Your task to perform on an android device: Search for flights from Zurich to Helsinki Image 0: 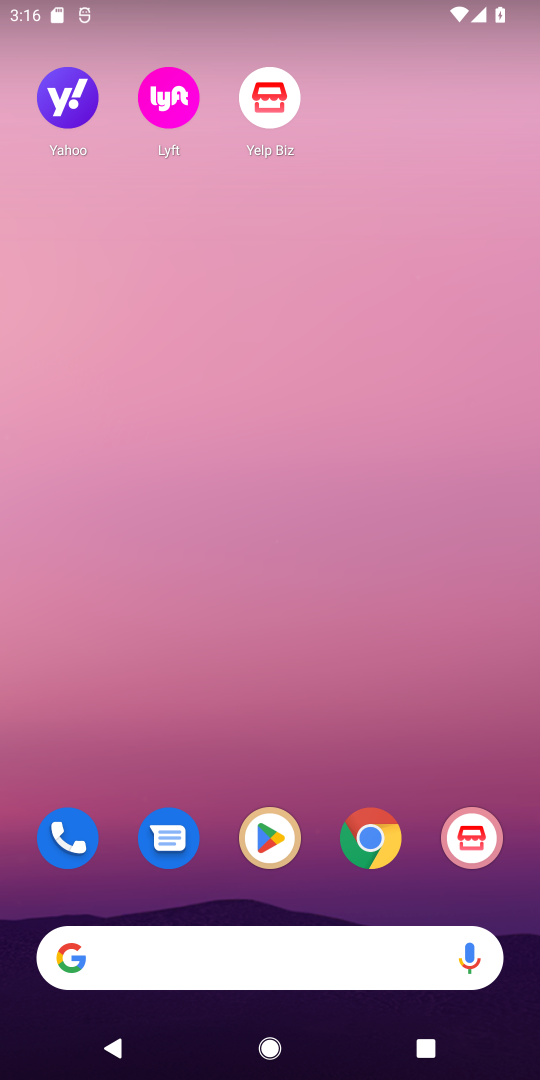
Step 0: click (369, 829)
Your task to perform on an android device: Search for flights from Zurich to Helsinki Image 1: 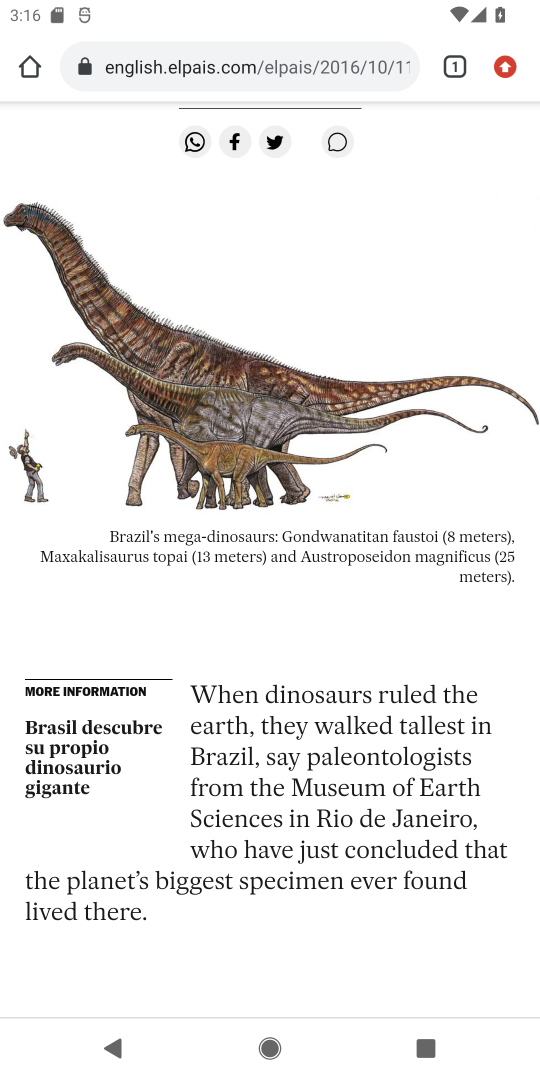
Step 1: click (281, 73)
Your task to perform on an android device: Search for flights from Zurich to Helsinki Image 2: 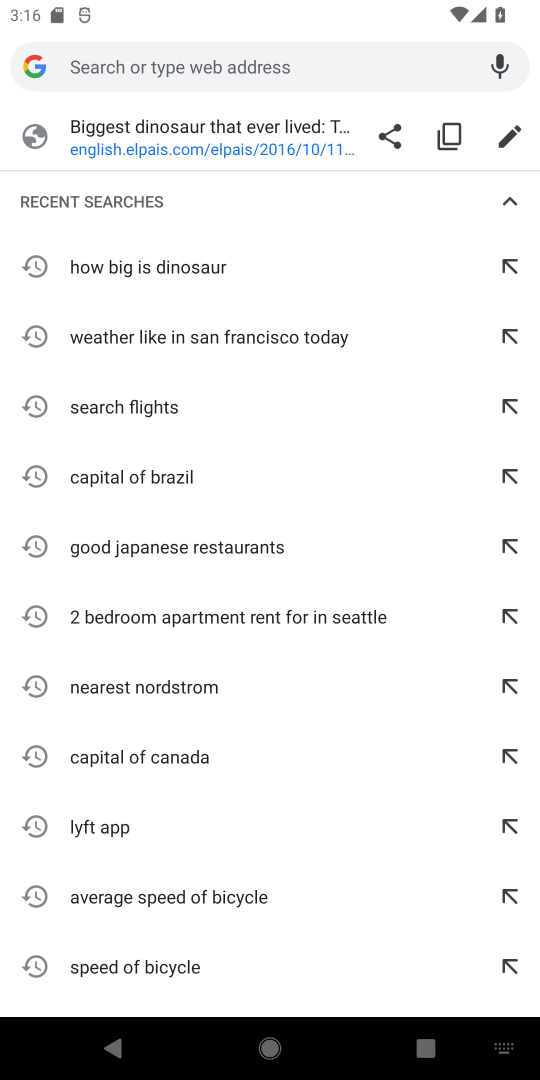
Step 2: type "search flight"
Your task to perform on an android device: Search for flights from Zurich to Helsinki Image 3: 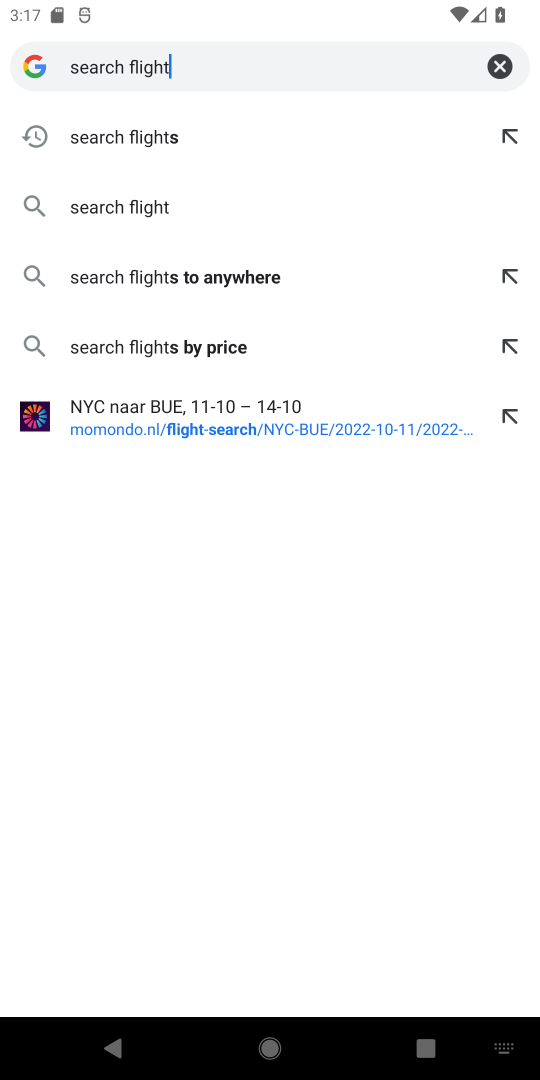
Step 3: click (142, 126)
Your task to perform on an android device: Search for flights from Zurich to Helsinki Image 4: 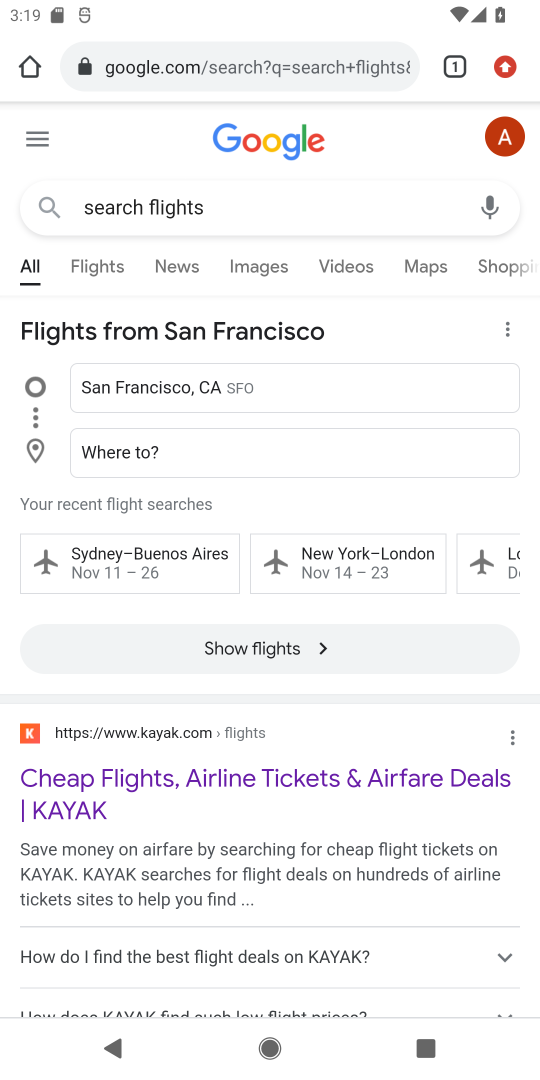
Step 4: click (249, 396)
Your task to perform on an android device: Search for flights from Zurich to Helsinki Image 5: 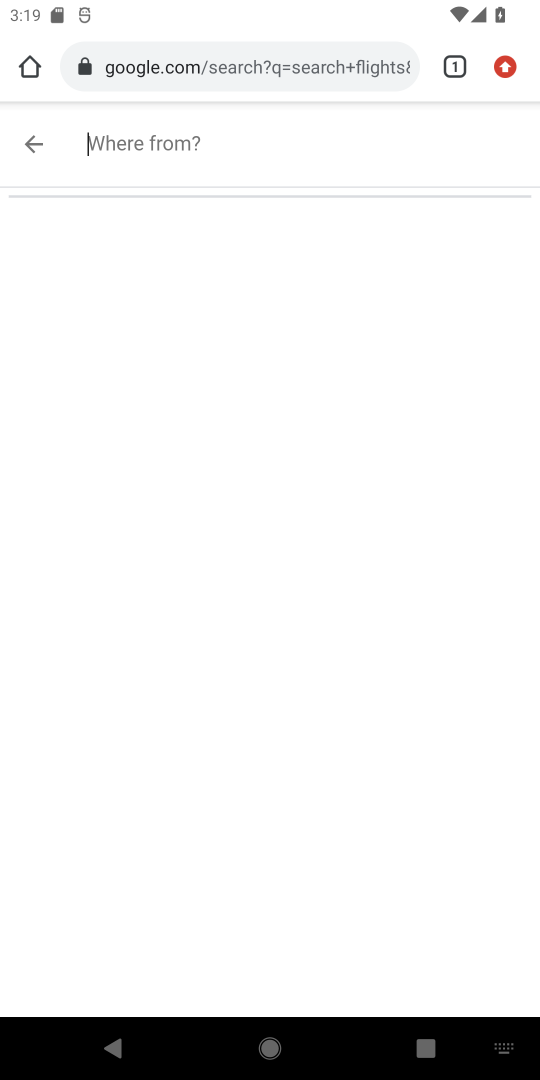
Step 5: type "zurich"
Your task to perform on an android device: Search for flights from Zurich to Helsinki Image 6: 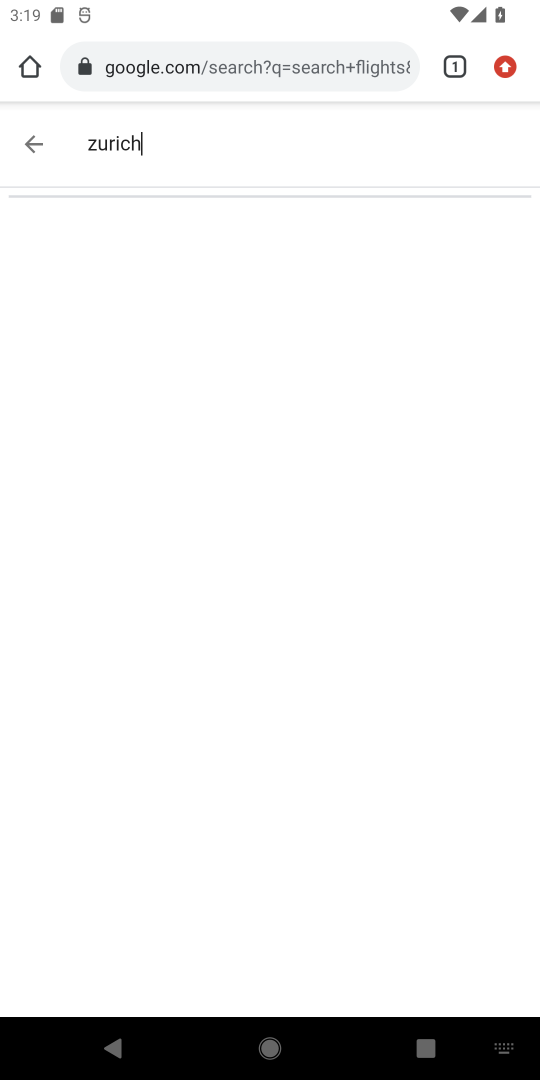
Step 6: type ""
Your task to perform on an android device: Search for flights from Zurich to Helsinki Image 7: 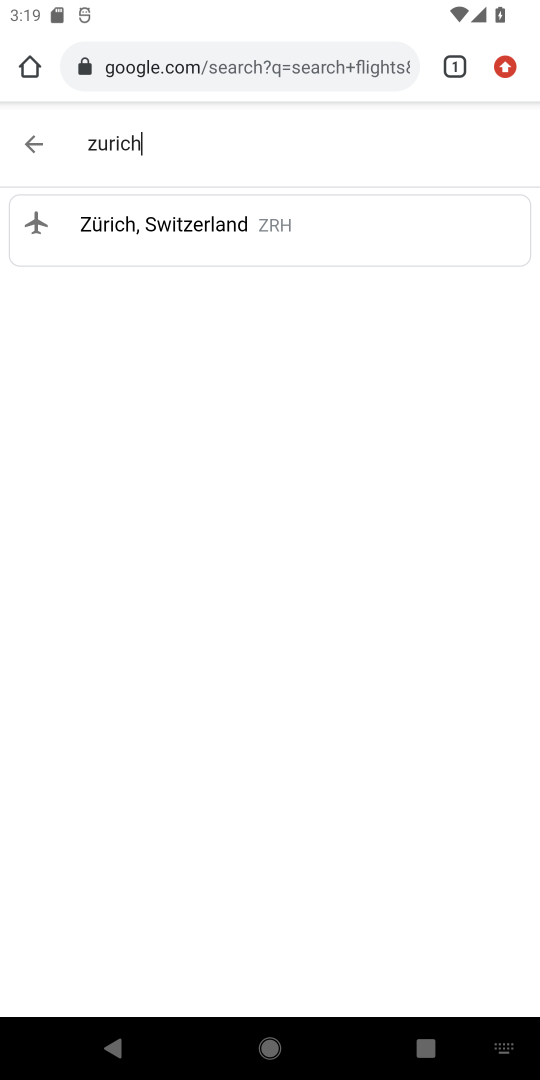
Step 7: click (109, 223)
Your task to perform on an android device: Search for flights from Zurich to Helsinki Image 8: 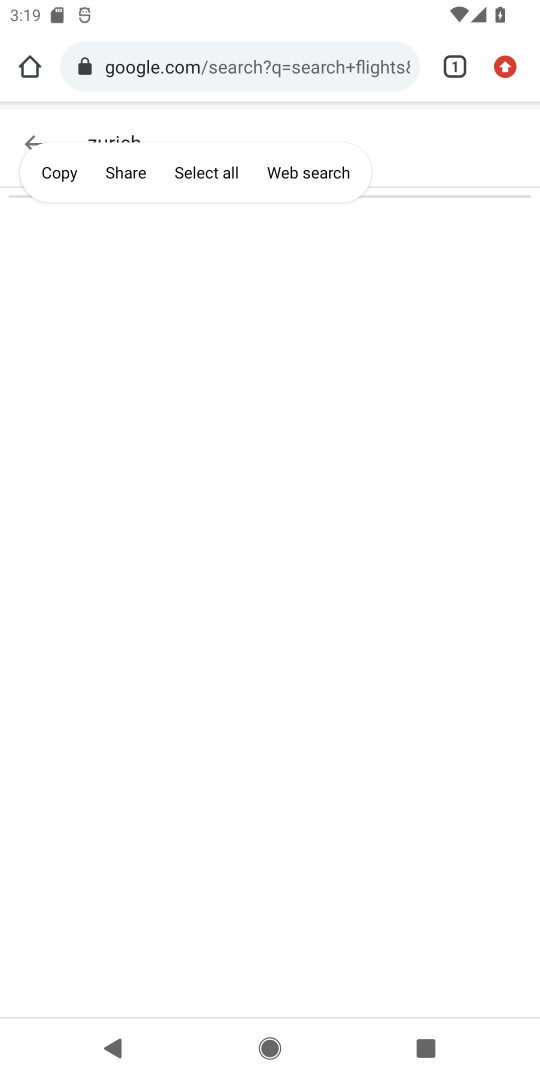
Step 8: click (217, 327)
Your task to perform on an android device: Search for flights from Zurich to Helsinki Image 9: 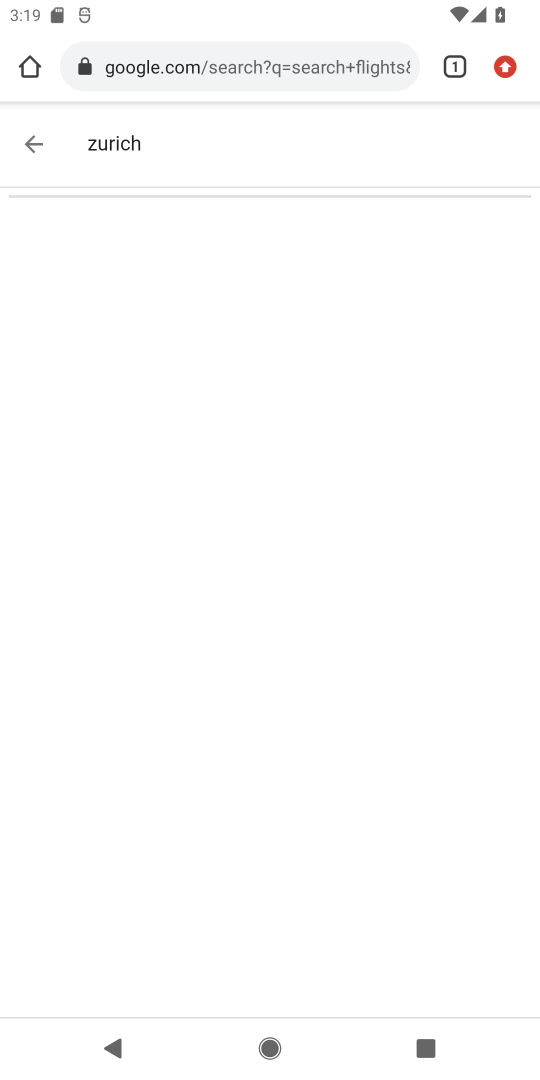
Step 9: click (154, 163)
Your task to perform on an android device: Search for flights from Zurich to Helsinki Image 10: 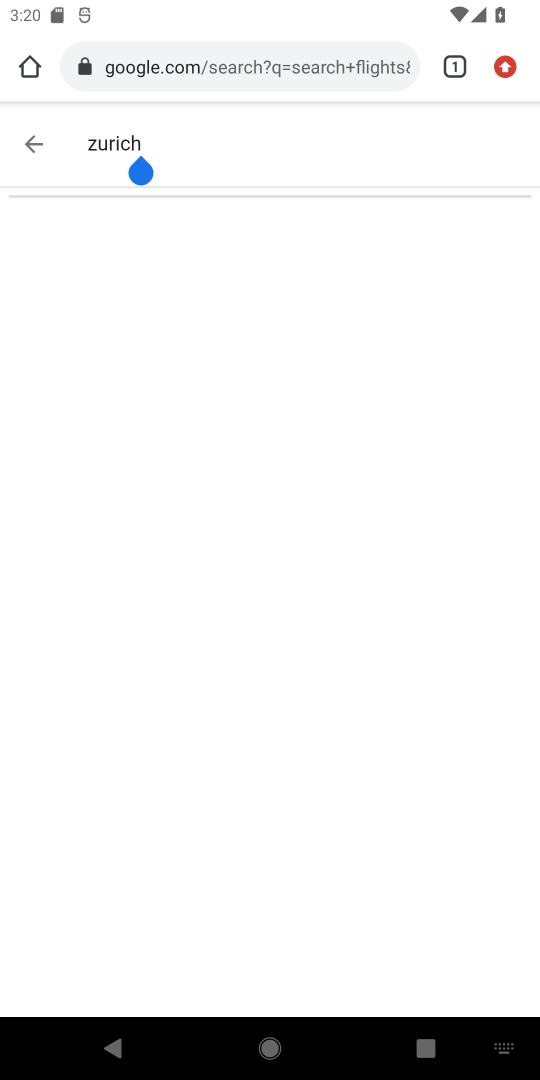
Step 10: click (298, 406)
Your task to perform on an android device: Search for flights from Zurich to Helsinki Image 11: 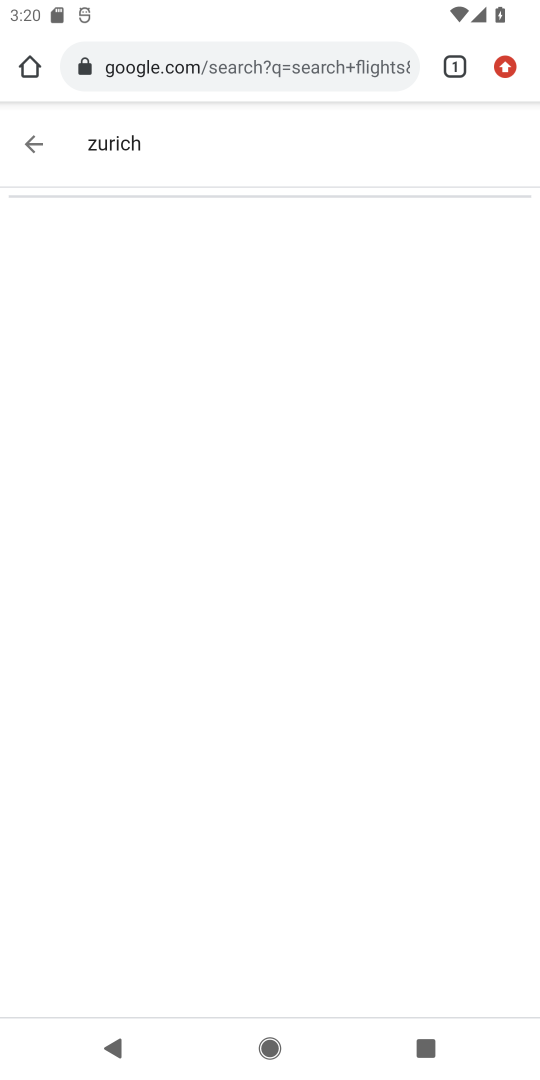
Step 11: type ""
Your task to perform on an android device: Search for flights from Zurich to Helsinki Image 12: 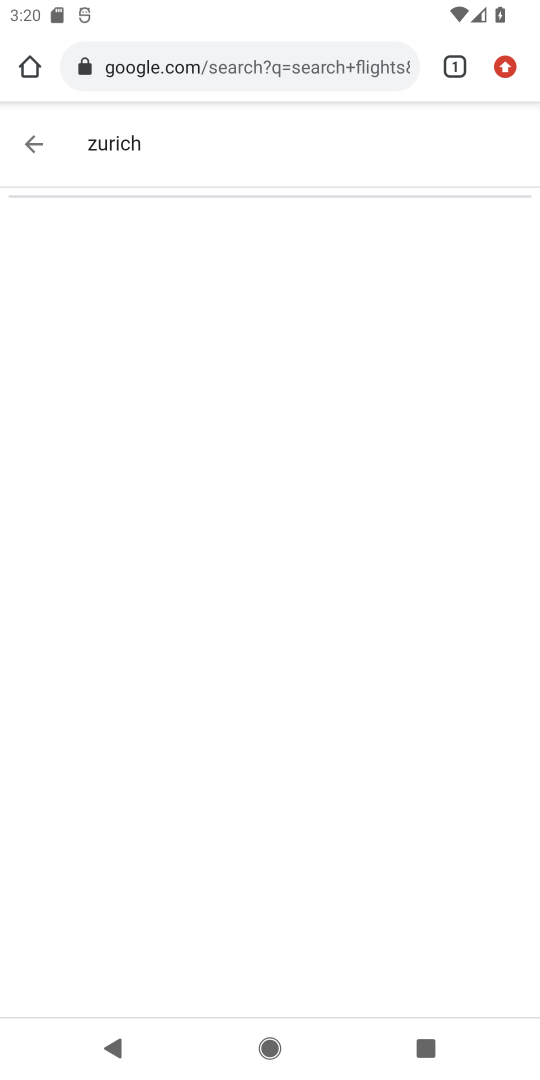
Step 12: click (174, 133)
Your task to perform on an android device: Search for flights from Zurich to Helsinki Image 13: 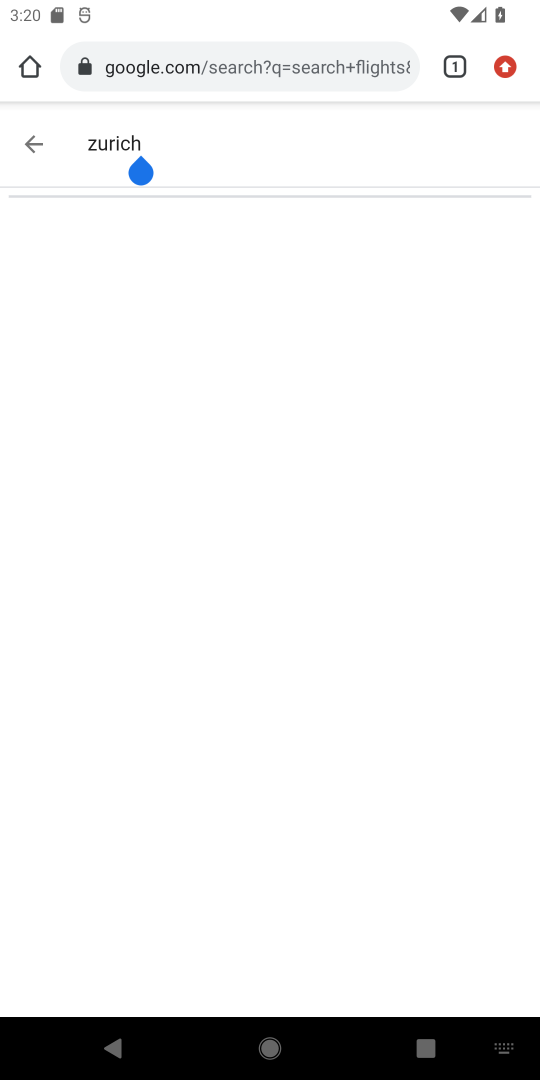
Step 13: type ""
Your task to perform on an android device: Search for flights from Zurich to Helsinki Image 14: 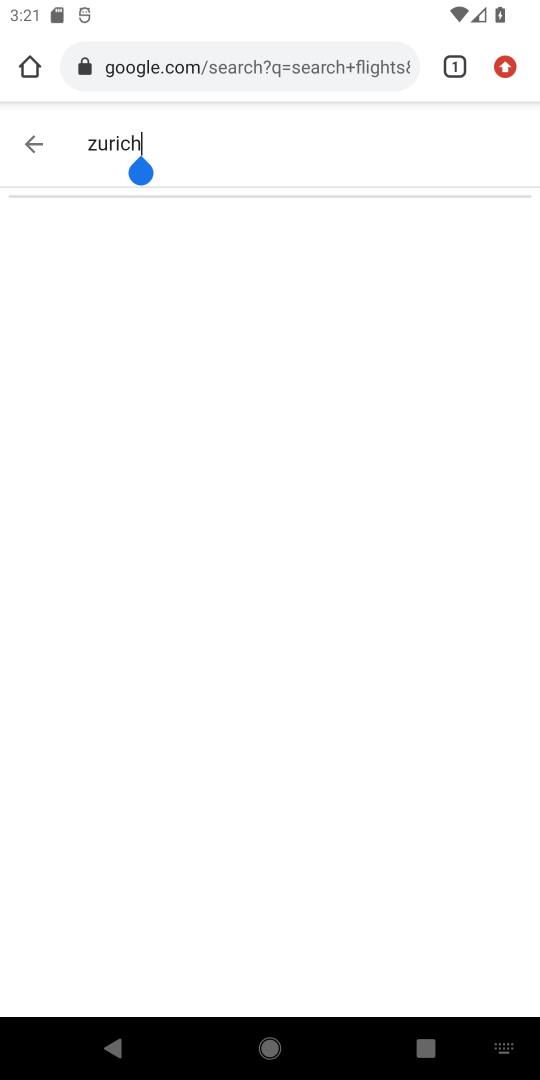
Step 14: click (121, 140)
Your task to perform on an android device: Search for flights from Zurich to Helsinki Image 15: 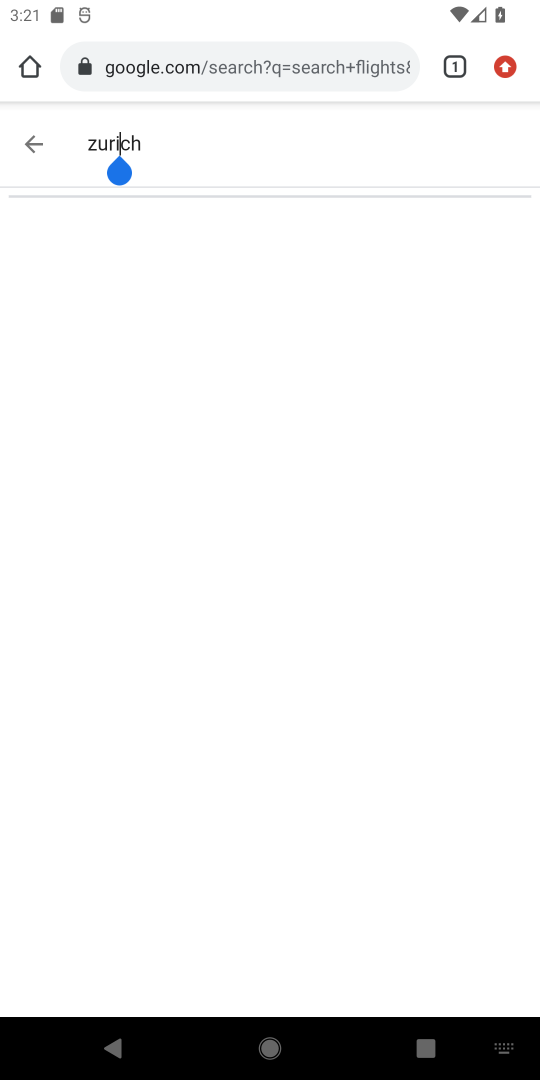
Step 15: click (148, 140)
Your task to perform on an android device: Search for flights from Zurich to Helsinki Image 16: 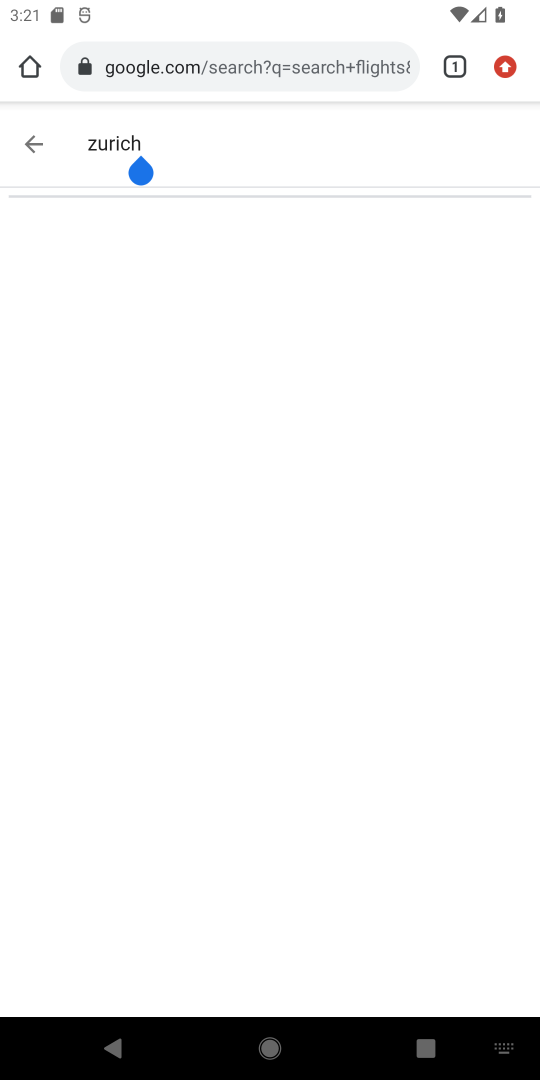
Step 16: type "zurich"
Your task to perform on an android device: Search for flights from Zurich to Helsinki Image 17: 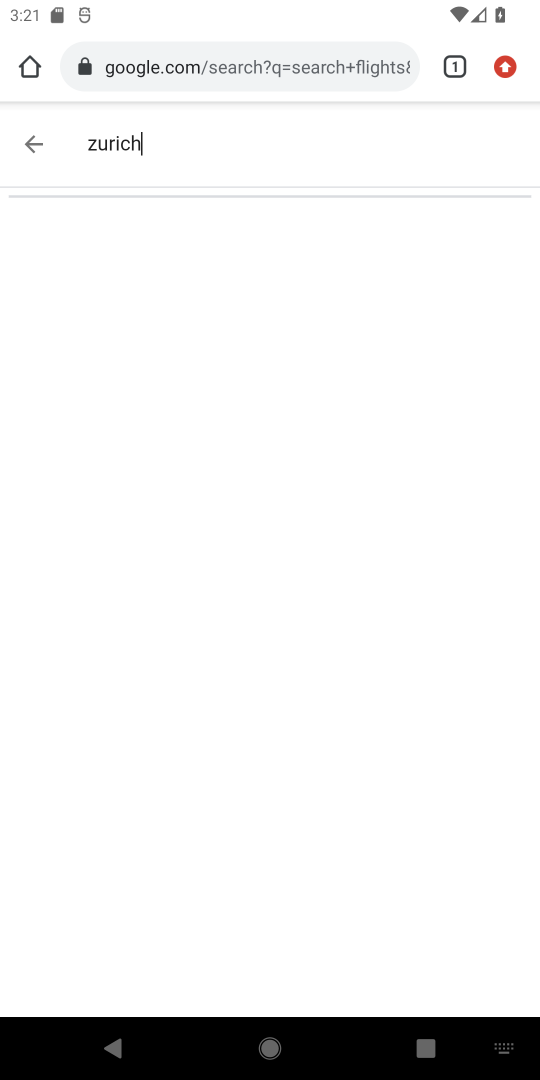
Step 17: type ""
Your task to perform on an android device: Search for flights from Zurich to Helsinki Image 18: 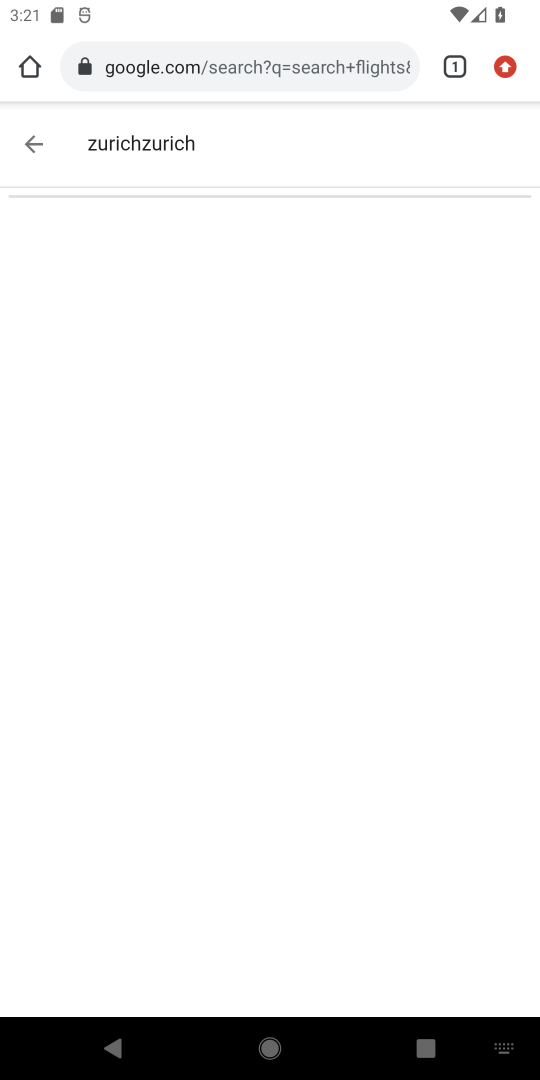
Step 18: type ""
Your task to perform on an android device: Search for flights from Zurich to Helsinki Image 19: 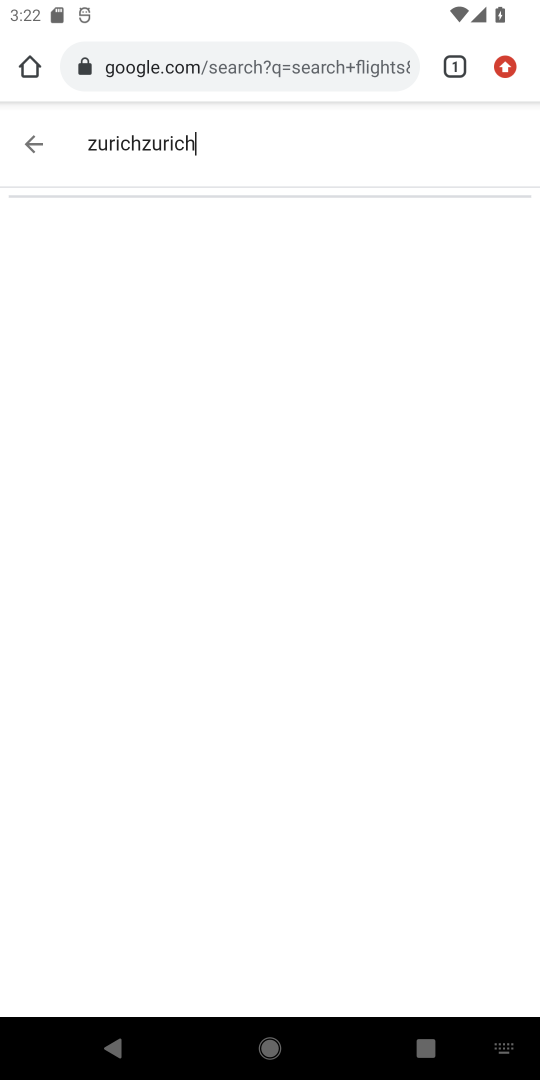
Step 19: task complete